Your task to perform on an android device: What's the weather going to be tomorrow? Image 0: 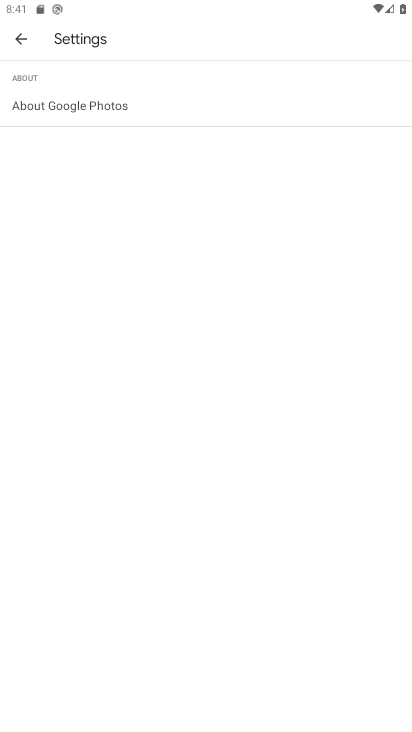
Step 0: press home button
Your task to perform on an android device: What's the weather going to be tomorrow? Image 1: 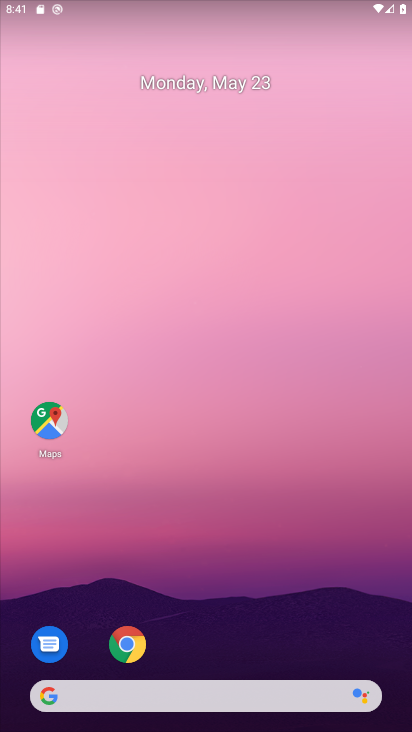
Step 1: drag from (352, 638) to (379, 98)
Your task to perform on an android device: What's the weather going to be tomorrow? Image 2: 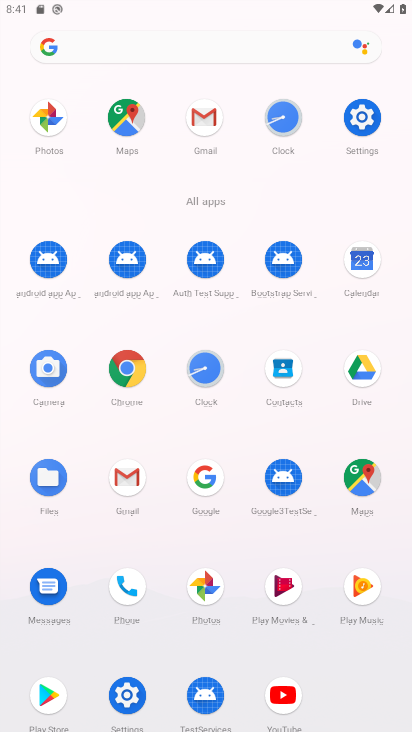
Step 2: click (125, 383)
Your task to perform on an android device: What's the weather going to be tomorrow? Image 3: 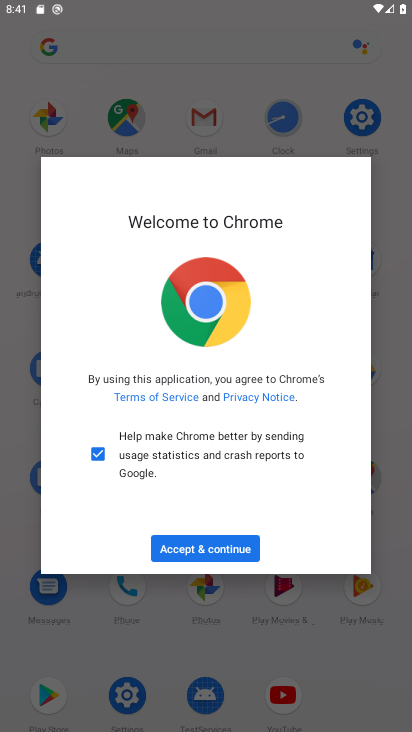
Step 3: click (238, 545)
Your task to perform on an android device: What's the weather going to be tomorrow? Image 4: 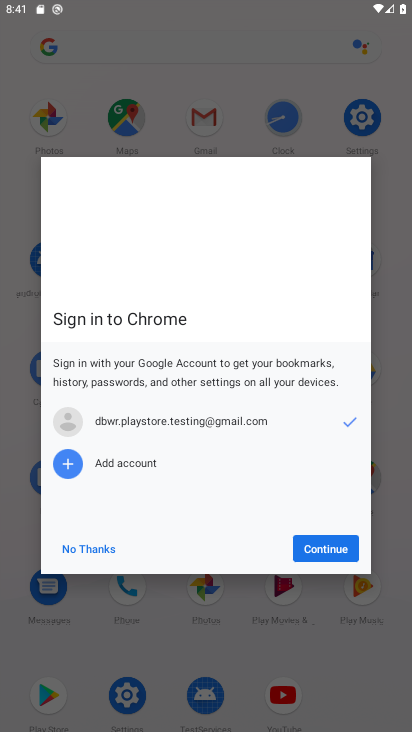
Step 4: click (328, 549)
Your task to perform on an android device: What's the weather going to be tomorrow? Image 5: 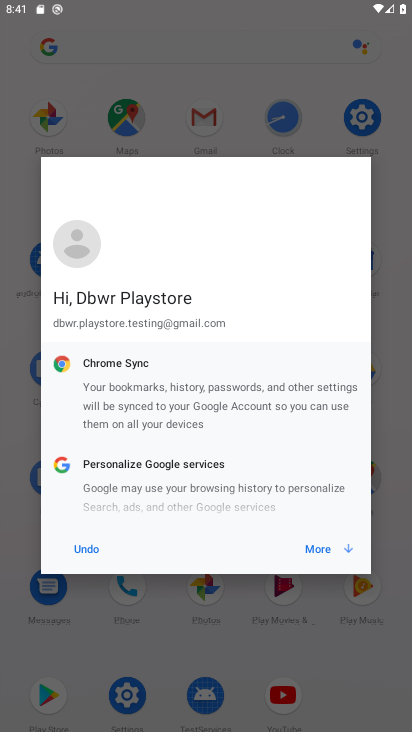
Step 5: click (325, 547)
Your task to perform on an android device: What's the weather going to be tomorrow? Image 6: 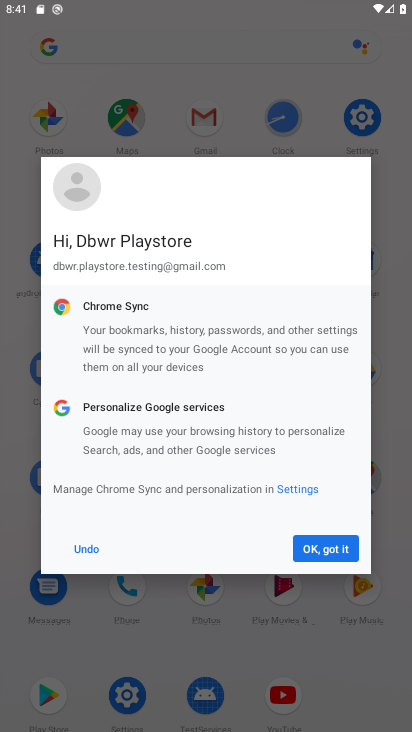
Step 6: click (321, 555)
Your task to perform on an android device: What's the weather going to be tomorrow? Image 7: 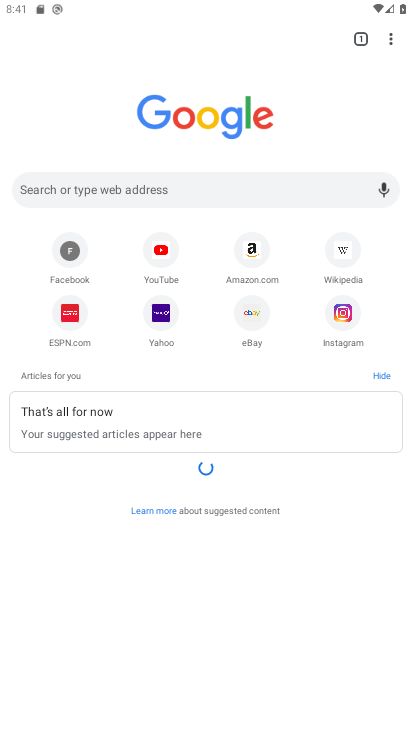
Step 7: click (202, 186)
Your task to perform on an android device: What's the weather going to be tomorrow? Image 8: 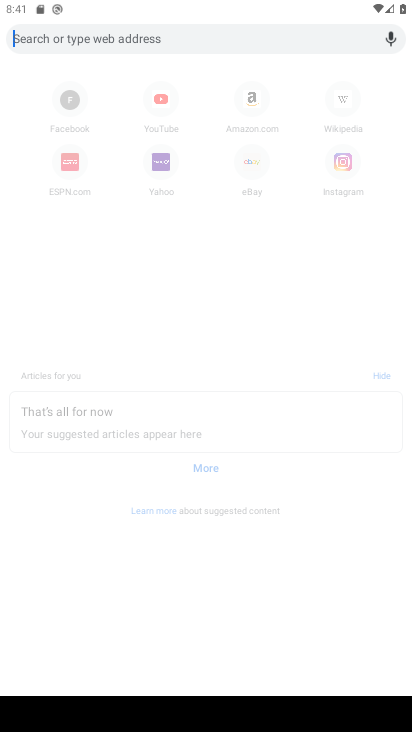
Step 8: type "what's the weather going to be tomorrow"
Your task to perform on an android device: What's the weather going to be tomorrow? Image 9: 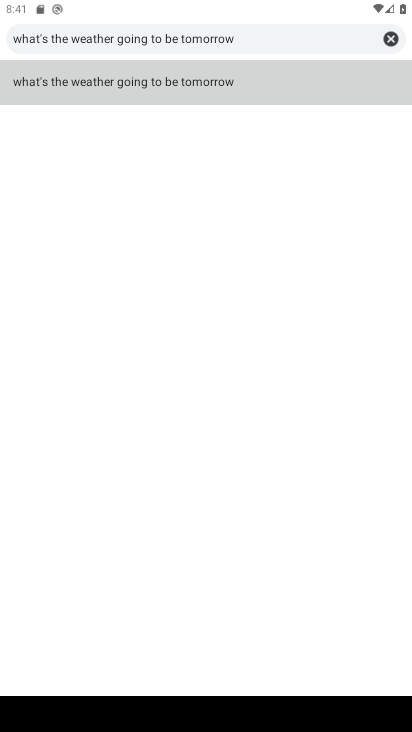
Step 9: click (95, 83)
Your task to perform on an android device: What's the weather going to be tomorrow? Image 10: 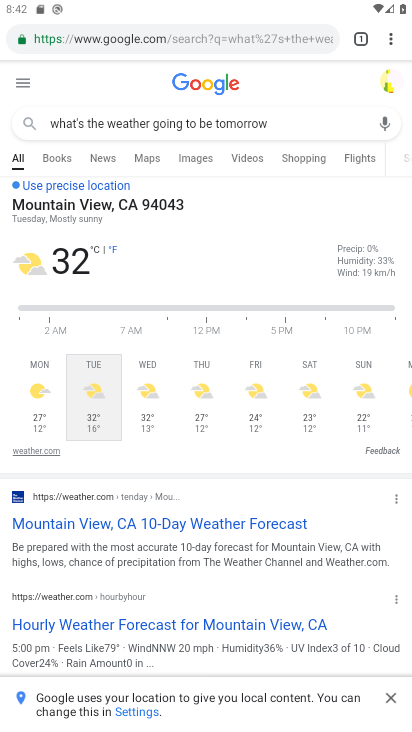
Step 10: task complete